Your task to perform on an android device: find photos in the google photos app Image 0: 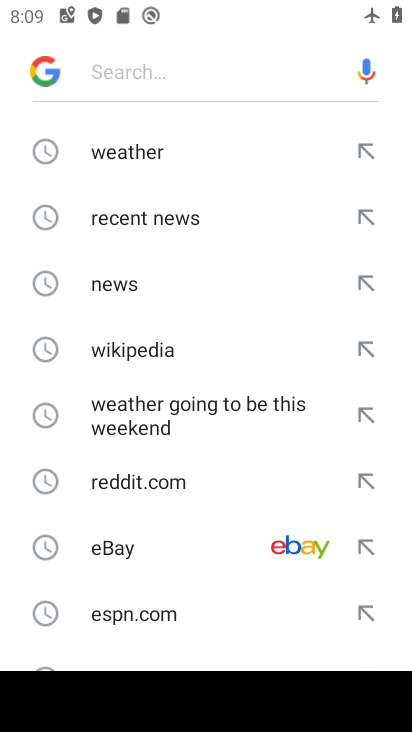
Step 0: press home button
Your task to perform on an android device: find photos in the google photos app Image 1: 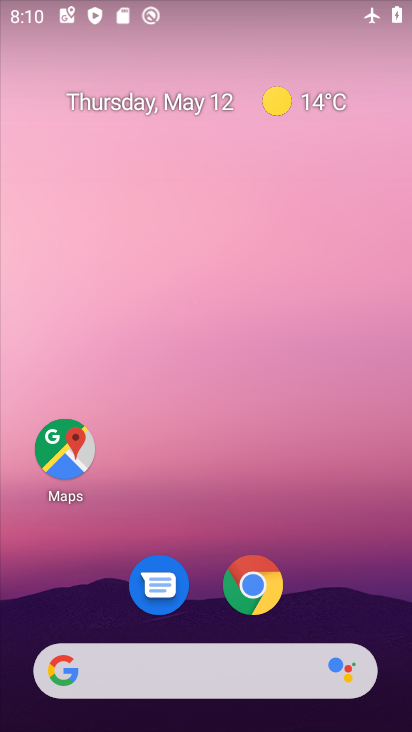
Step 1: press home button
Your task to perform on an android device: find photos in the google photos app Image 2: 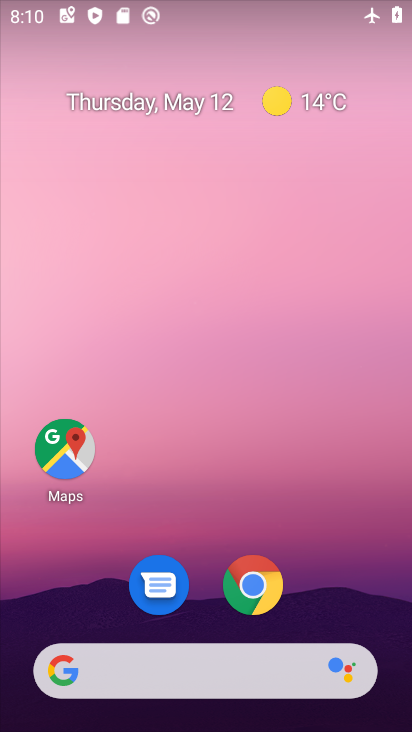
Step 2: drag from (285, 438) to (240, 35)
Your task to perform on an android device: find photos in the google photos app Image 3: 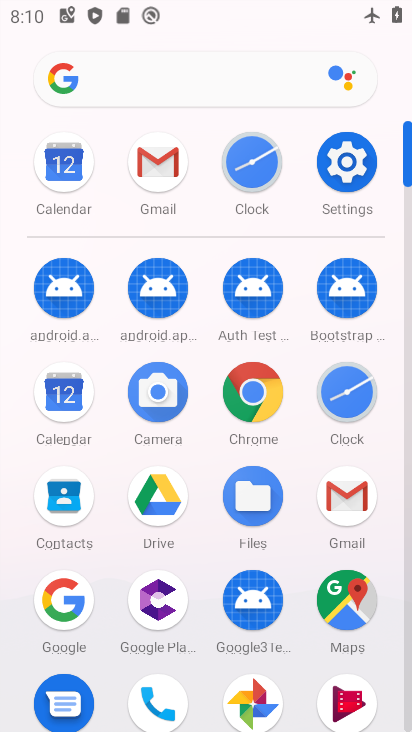
Step 3: drag from (209, 402) to (202, 249)
Your task to perform on an android device: find photos in the google photos app Image 4: 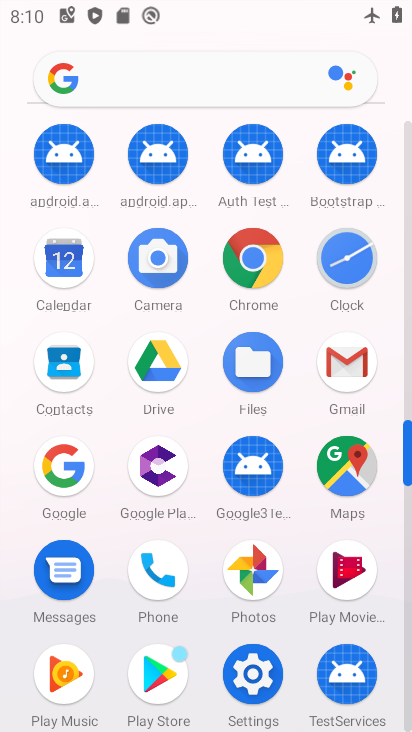
Step 4: click (241, 553)
Your task to perform on an android device: find photos in the google photos app Image 5: 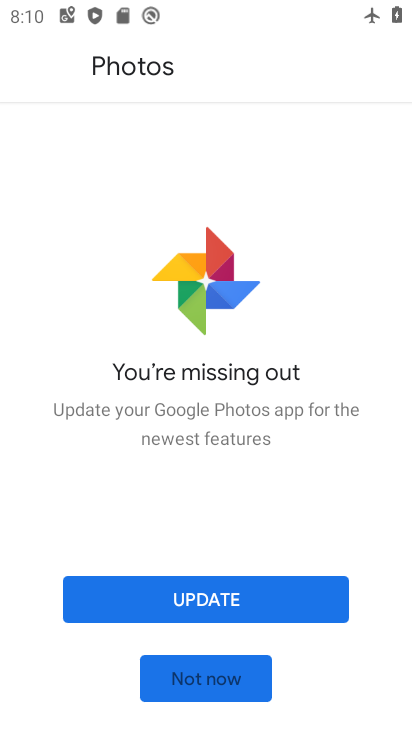
Step 5: click (222, 678)
Your task to perform on an android device: find photos in the google photos app Image 6: 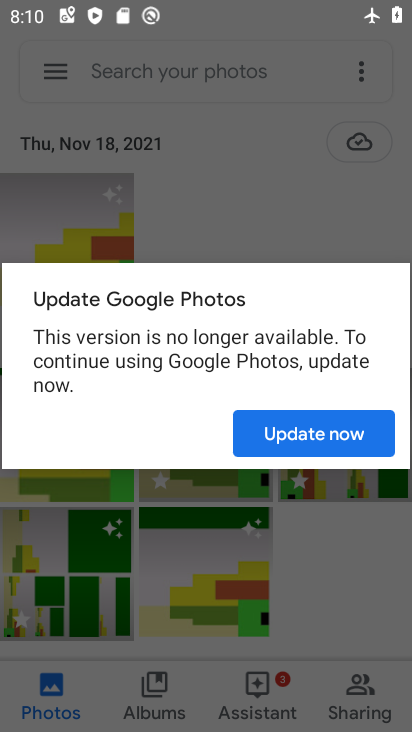
Step 6: click (274, 434)
Your task to perform on an android device: find photos in the google photos app Image 7: 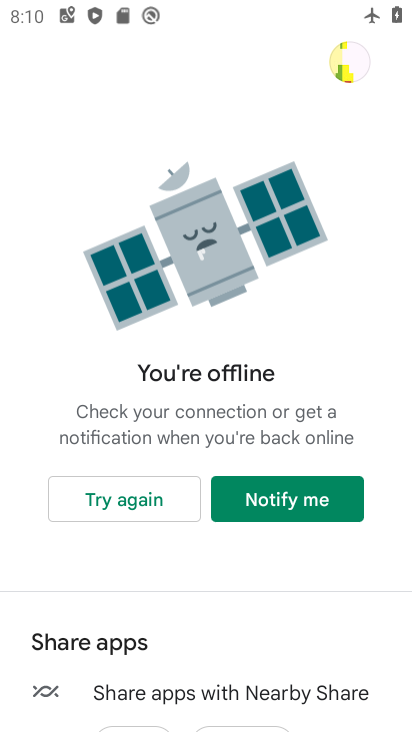
Step 7: click (321, 497)
Your task to perform on an android device: find photos in the google photos app Image 8: 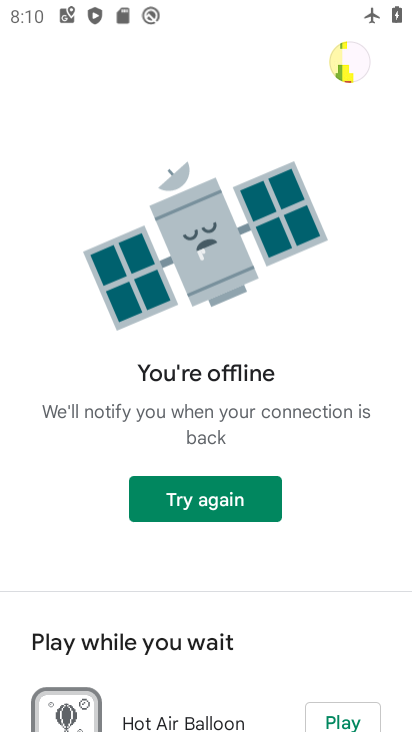
Step 8: click (247, 498)
Your task to perform on an android device: find photos in the google photos app Image 9: 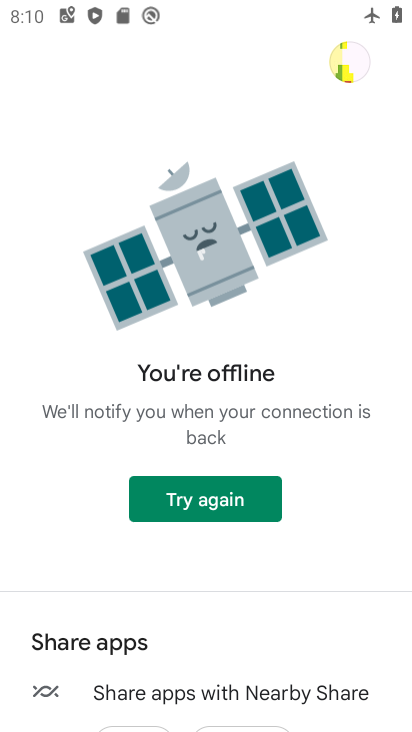
Step 9: task complete